Your task to perform on an android device: toggle notification dots Image 0: 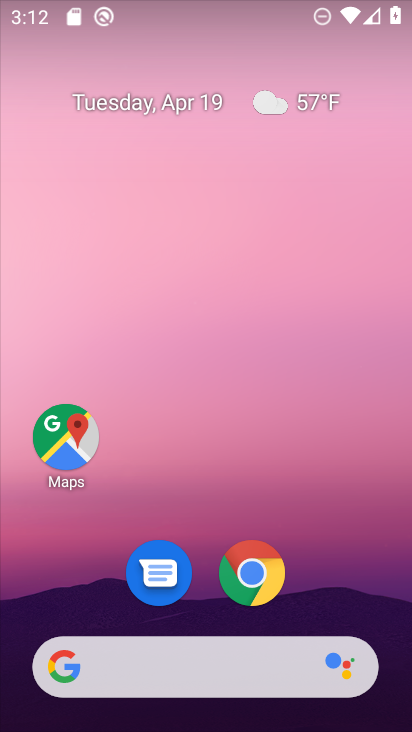
Step 0: drag from (340, 576) to (324, 62)
Your task to perform on an android device: toggle notification dots Image 1: 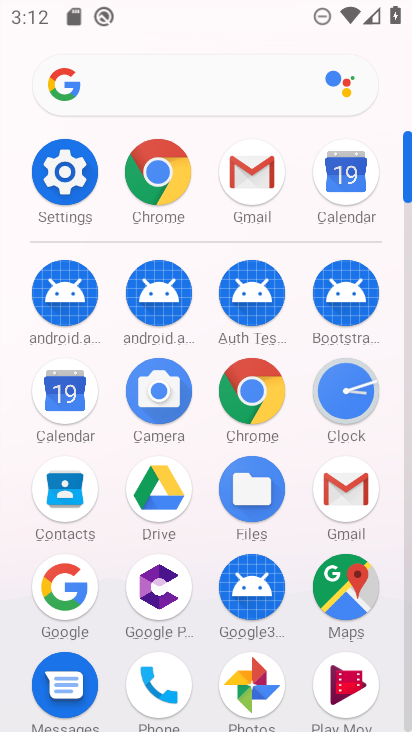
Step 1: click (64, 172)
Your task to perform on an android device: toggle notification dots Image 2: 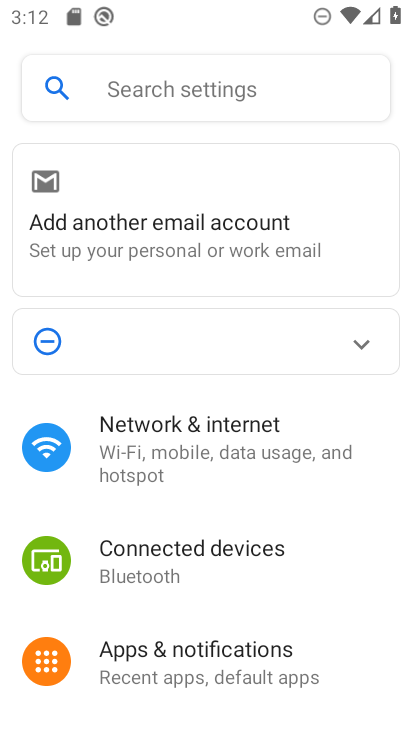
Step 2: click (174, 655)
Your task to perform on an android device: toggle notification dots Image 3: 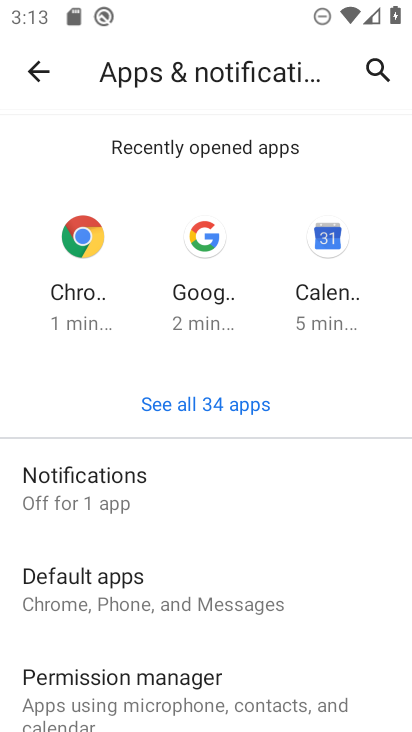
Step 3: click (102, 506)
Your task to perform on an android device: toggle notification dots Image 4: 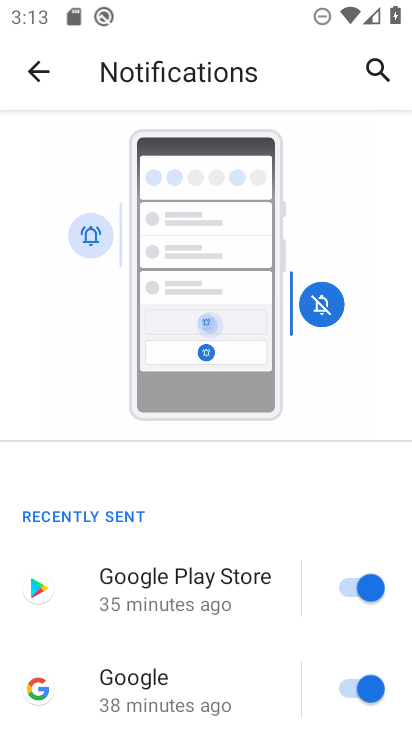
Step 4: drag from (216, 609) to (213, 192)
Your task to perform on an android device: toggle notification dots Image 5: 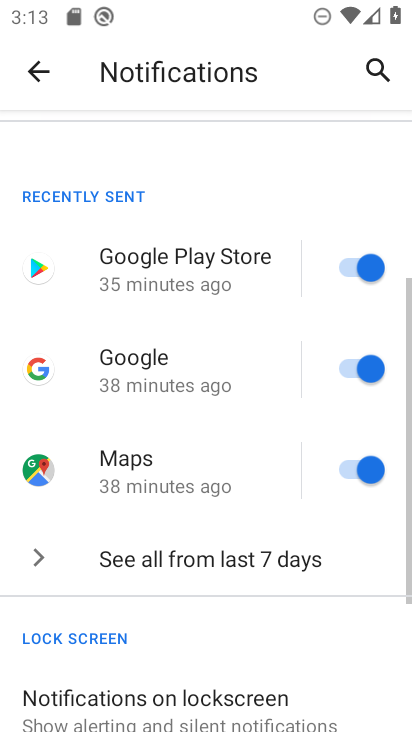
Step 5: drag from (176, 601) to (185, 176)
Your task to perform on an android device: toggle notification dots Image 6: 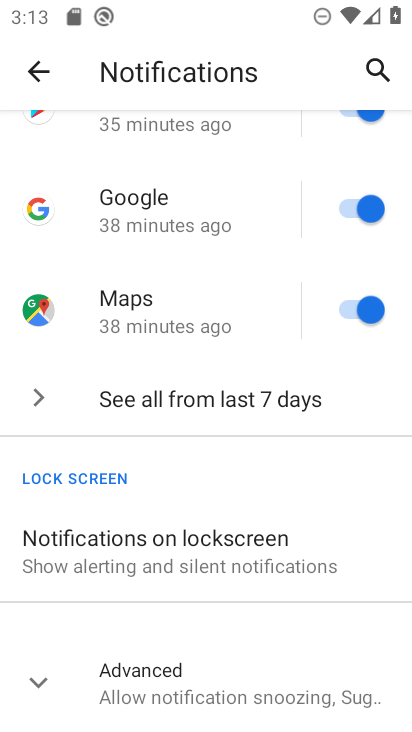
Step 6: click (39, 690)
Your task to perform on an android device: toggle notification dots Image 7: 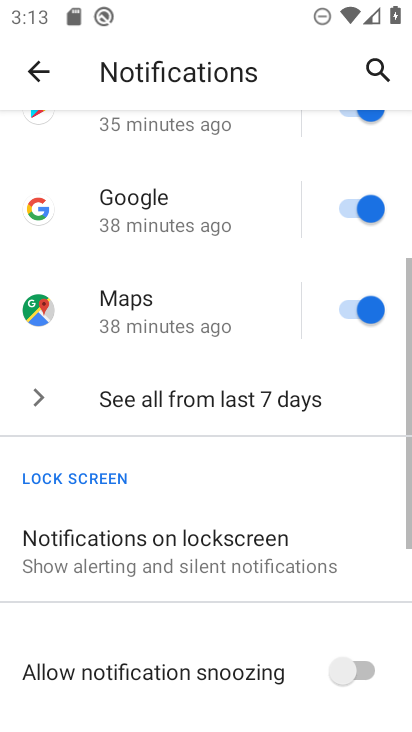
Step 7: drag from (196, 687) to (200, 218)
Your task to perform on an android device: toggle notification dots Image 8: 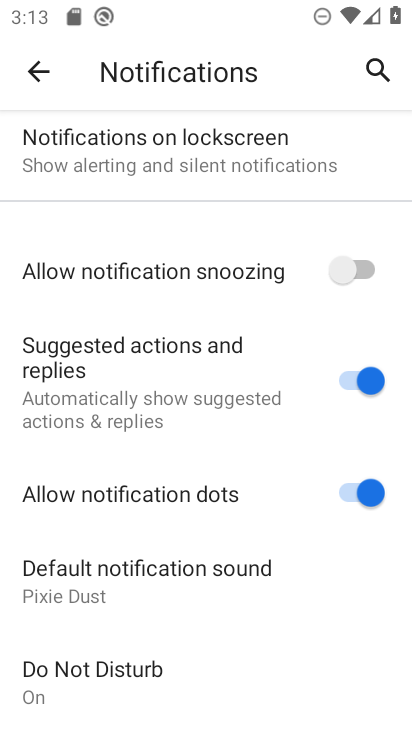
Step 8: click (379, 495)
Your task to perform on an android device: toggle notification dots Image 9: 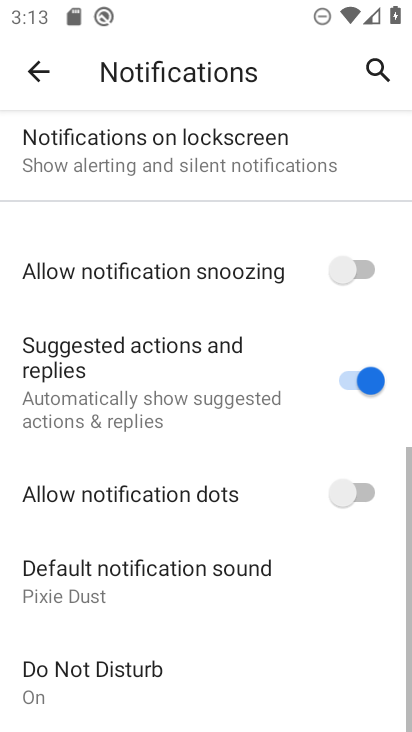
Step 9: task complete